Your task to perform on an android device: Open Yahoo.com Image 0: 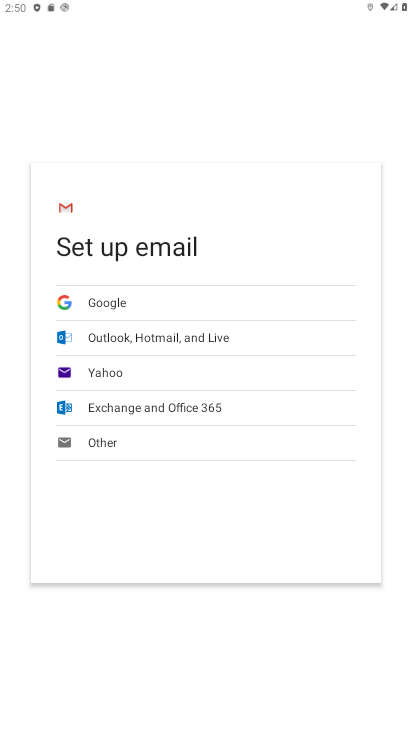
Step 0: press home button
Your task to perform on an android device: Open Yahoo.com Image 1: 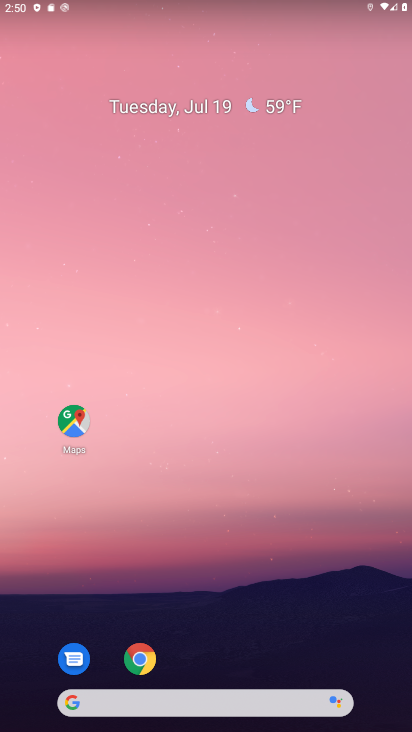
Step 1: click (139, 659)
Your task to perform on an android device: Open Yahoo.com Image 2: 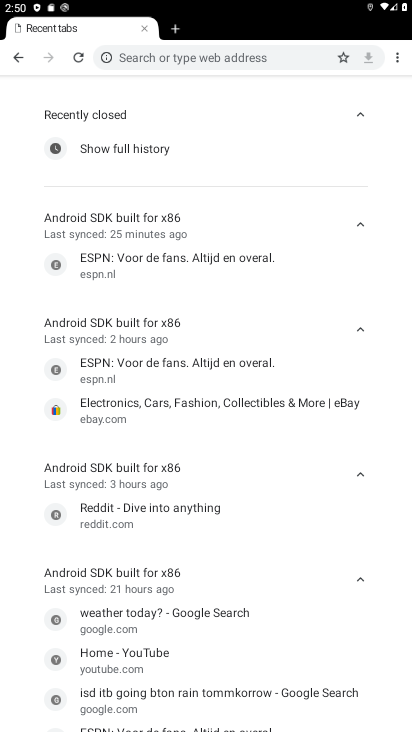
Step 2: click (252, 58)
Your task to perform on an android device: Open Yahoo.com Image 3: 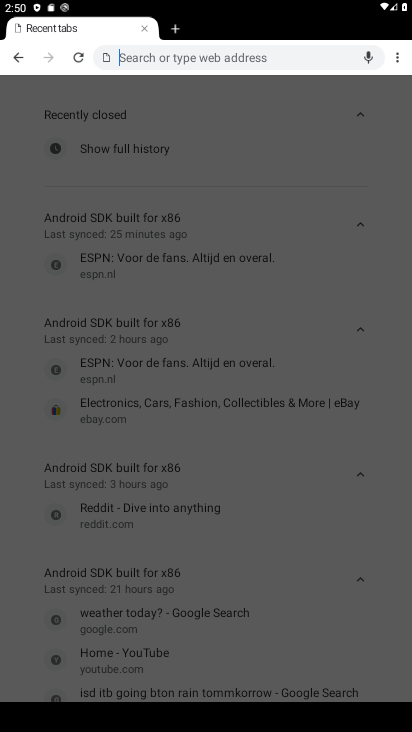
Step 3: type "Yahoo.com"
Your task to perform on an android device: Open Yahoo.com Image 4: 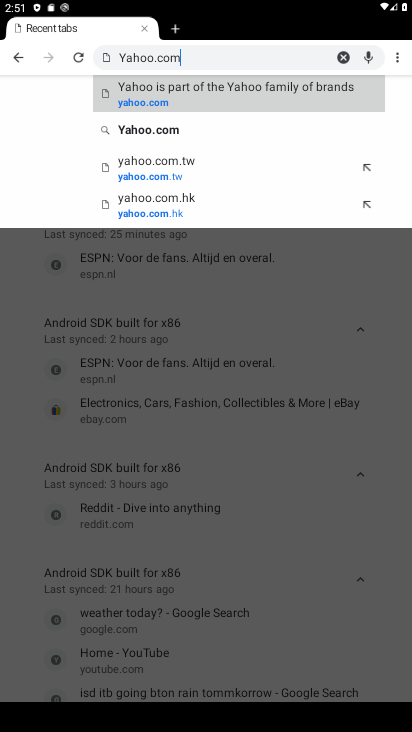
Step 4: click (167, 135)
Your task to perform on an android device: Open Yahoo.com Image 5: 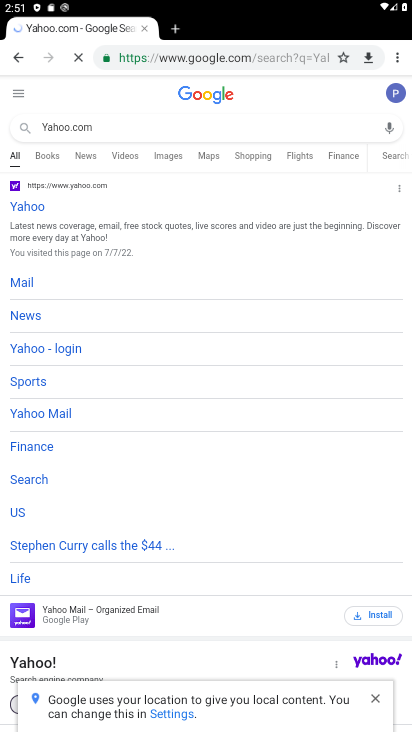
Step 5: click (42, 204)
Your task to perform on an android device: Open Yahoo.com Image 6: 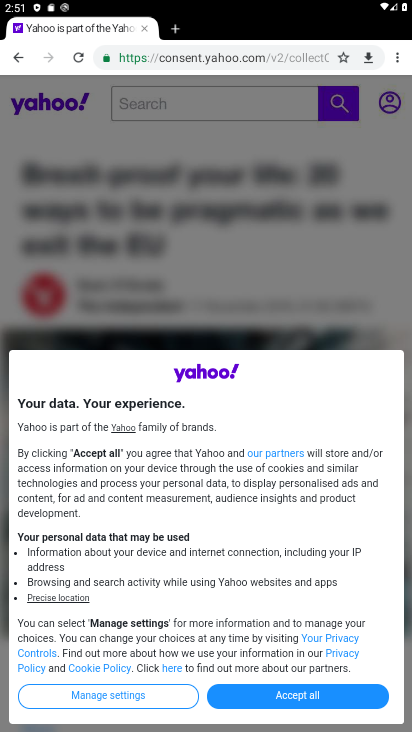
Step 6: click (307, 692)
Your task to perform on an android device: Open Yahoo.com Image 7: 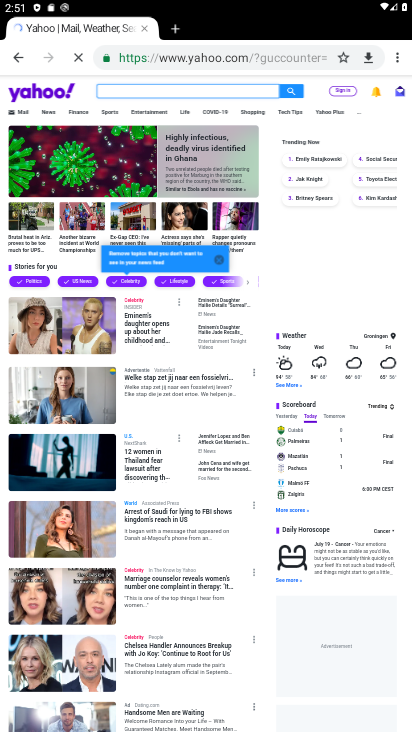
Step 7: task complete